Your task to perform on an android device: Search for vegetarian restaurants on Maps Image 0: 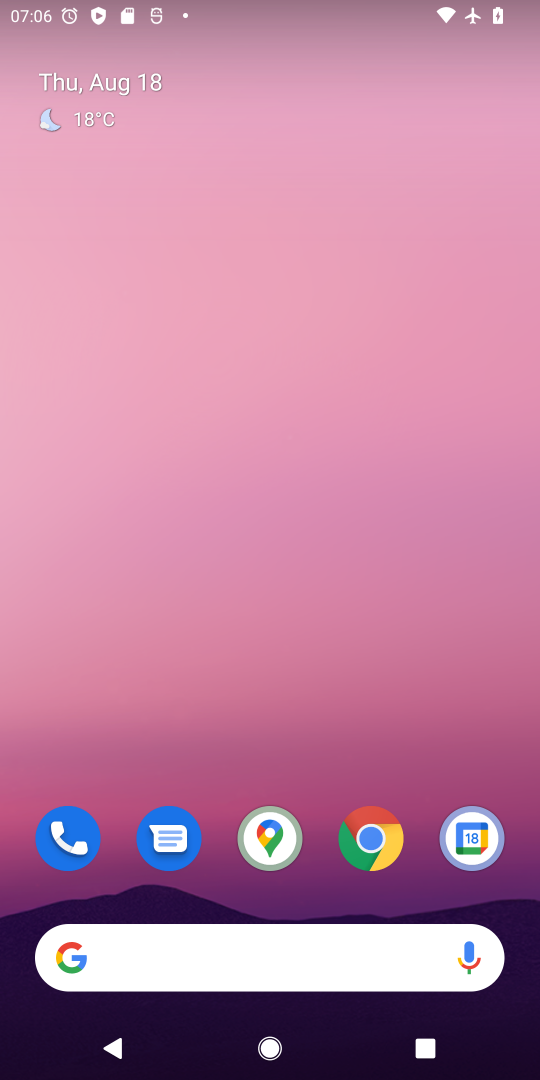
Step 0: press home button
Your task to perform on an android device: Search for vegetarian restaurants on Maps Image 1: 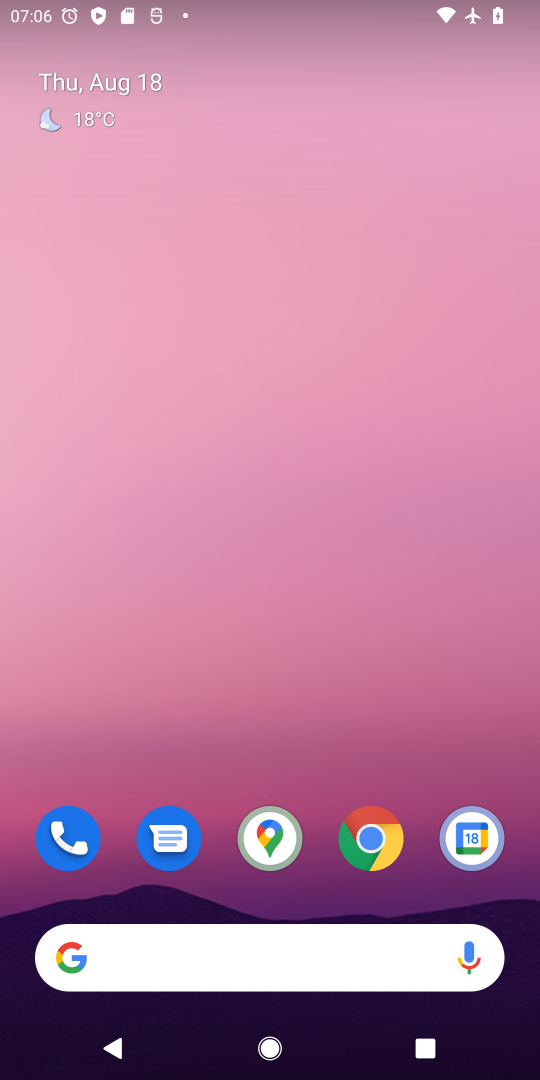
Step 1: click (268, 853)
Your task to perform on an android device: Search for vegetarian restaurants on Maps Image 2: 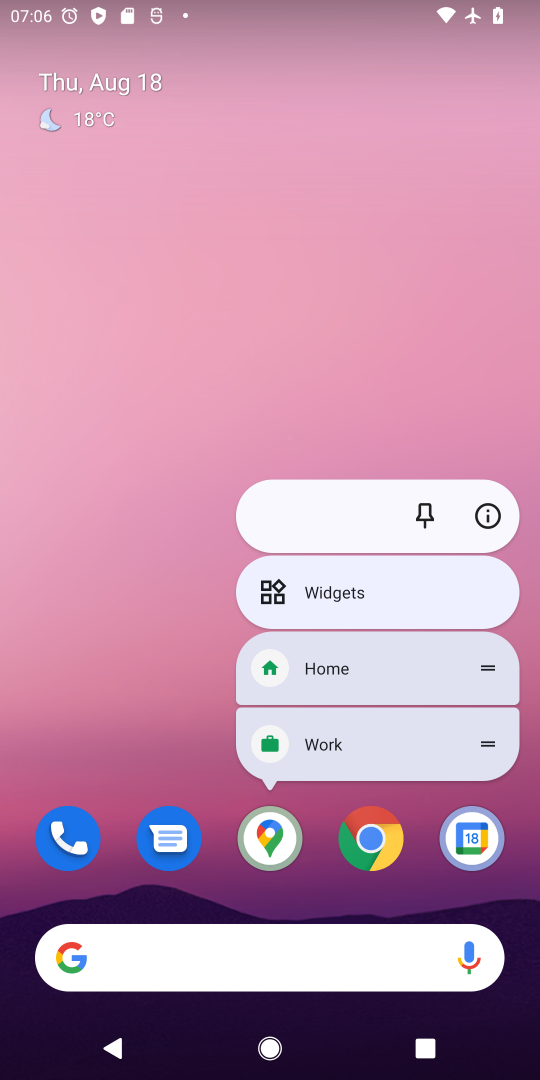
Step 2: click (155, 362)
Your task to perform on an android device: Search for vegetarian restaurants on Maps Image 3: 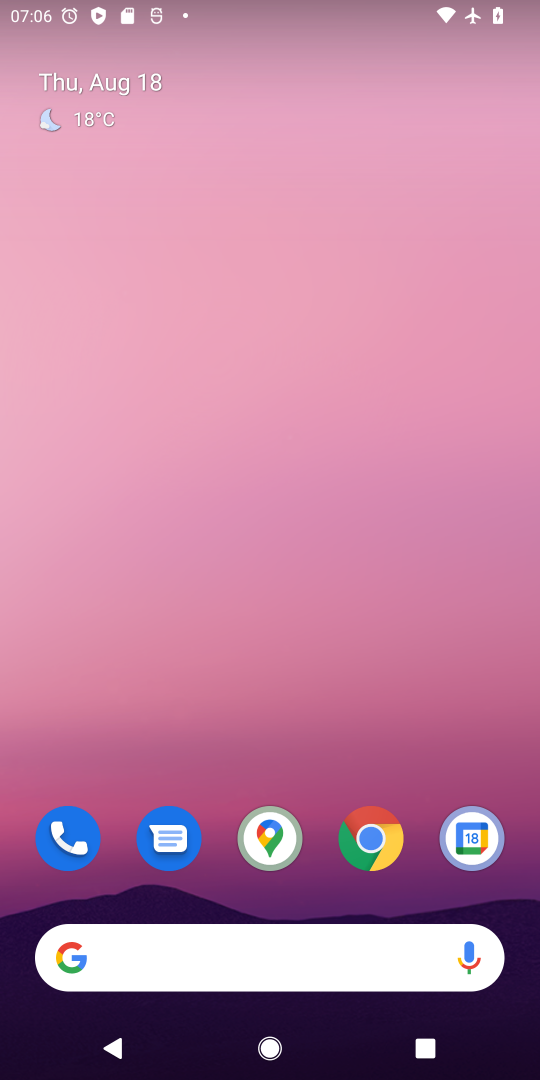
Step 3: click (271, 841)
Your task to perform on an android device: Search for vegetarian restaurants on Maps Image 4: 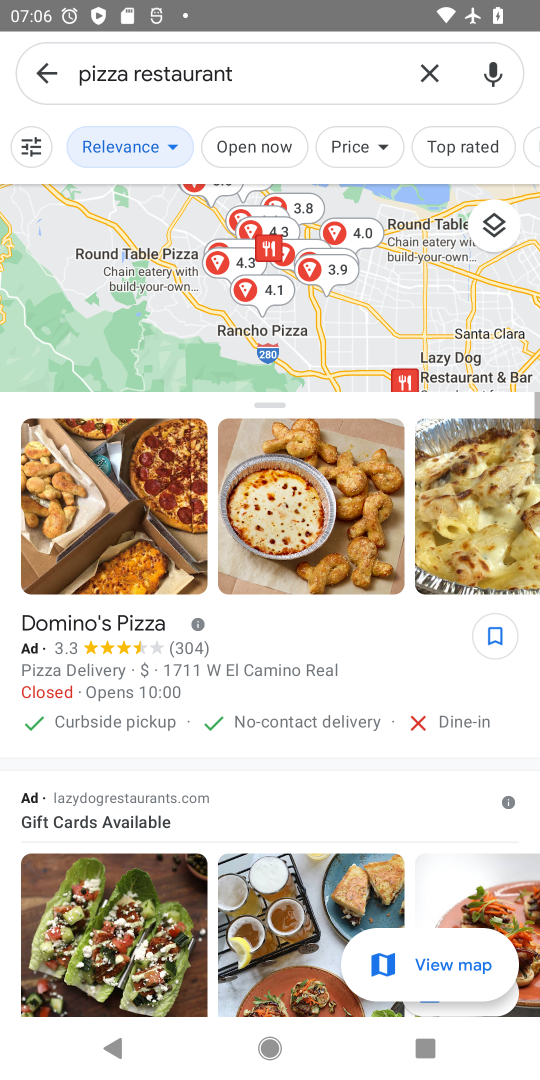
Step 4: click (431, 76)
Your task to perform on an android device: Search for vegetarian restaurants on Maps Image 5: 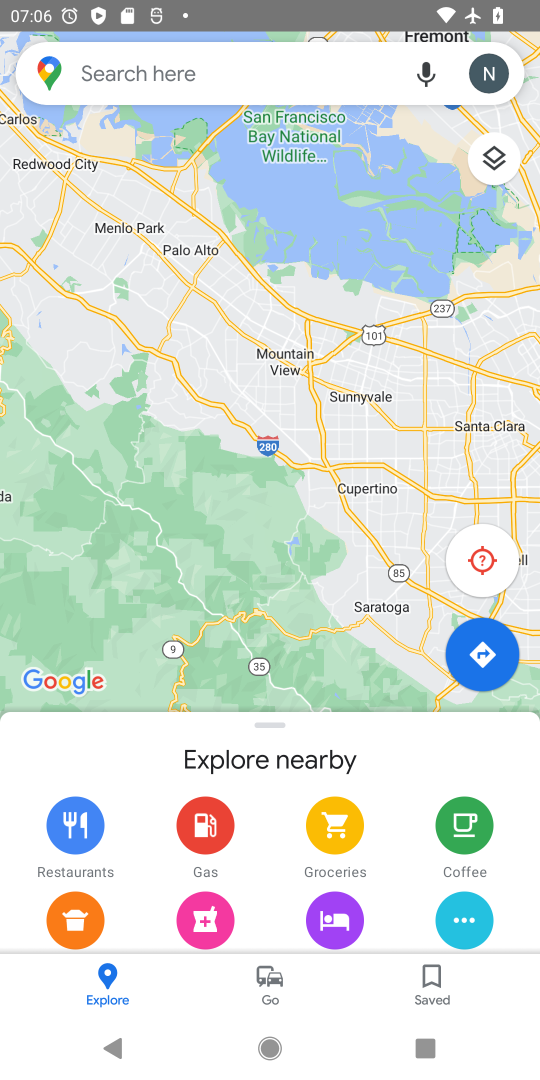
Step 5: click (151, 71)
Your task to perform on an android device: Search for vegetarian restaurants on Maps Image 6: 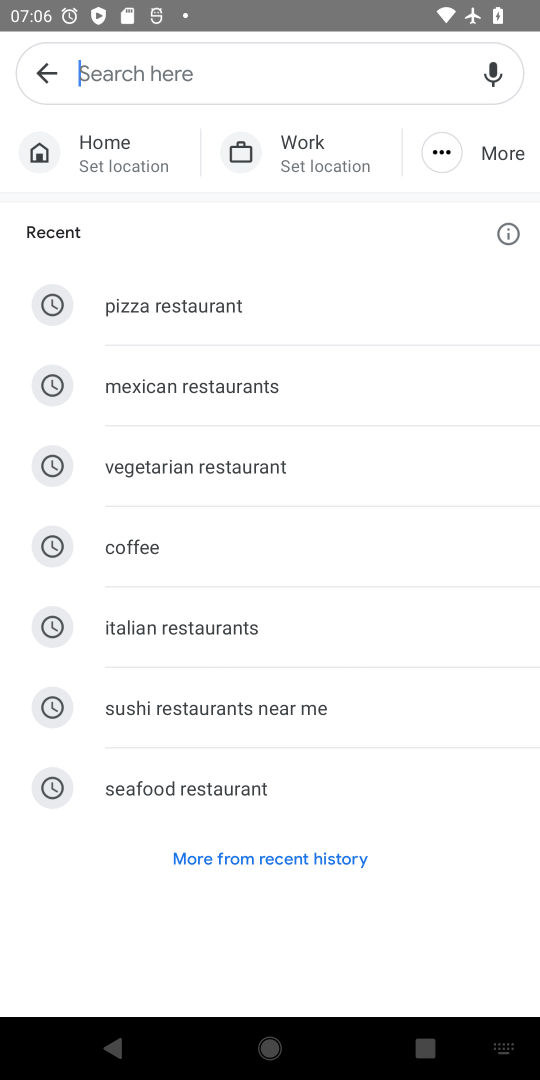
Step 6: click (212, 471)
Your task to perform on an android device: Search for vegetarian restaurants on Maps Image 7: 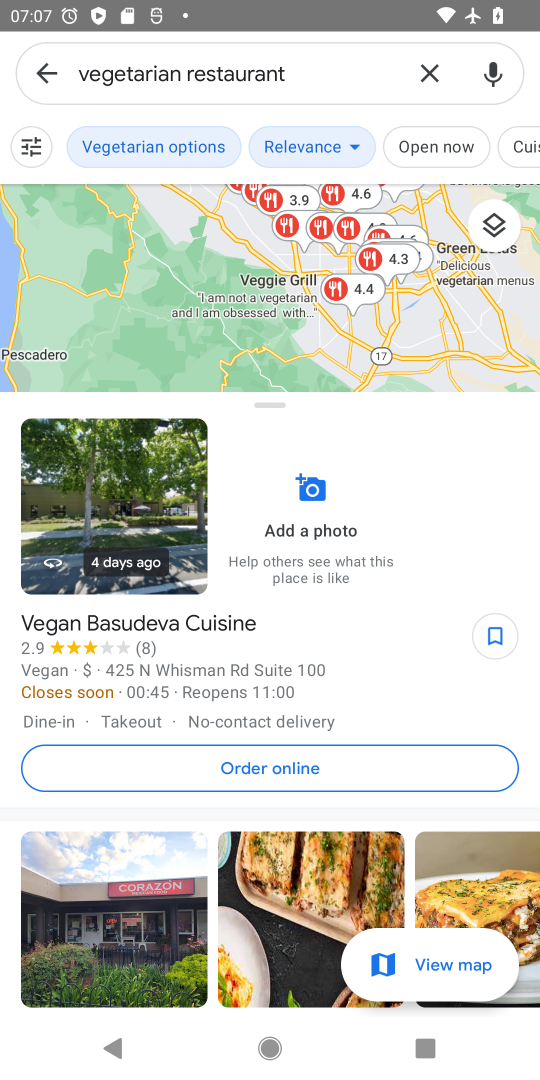
Step 7: task complete